Your task to perform on an android device: Go to sound settings Image 0: 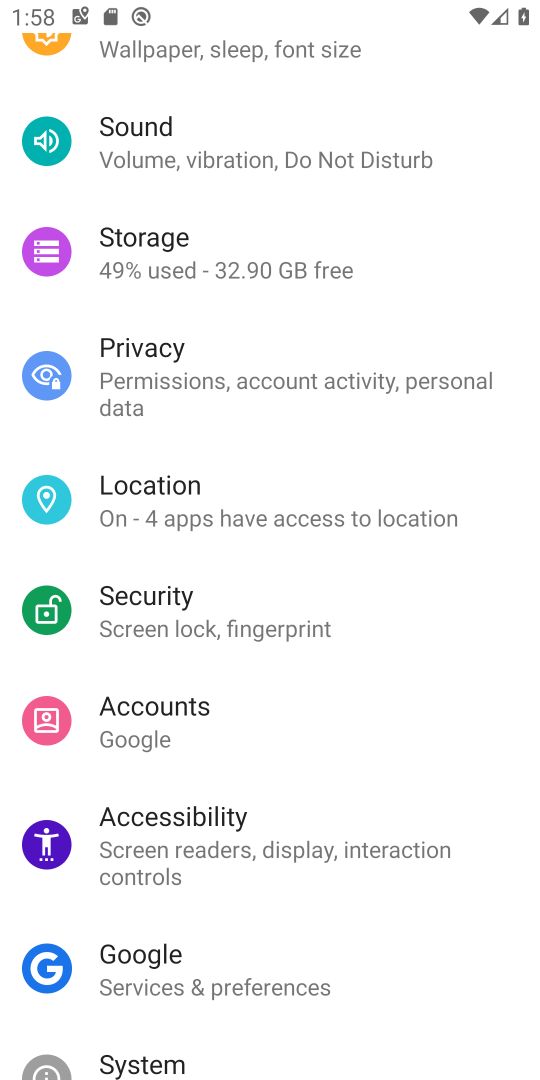
Step 0: click (302, 152)
Your task to perform on an android device: Go to sound settings Image 1: 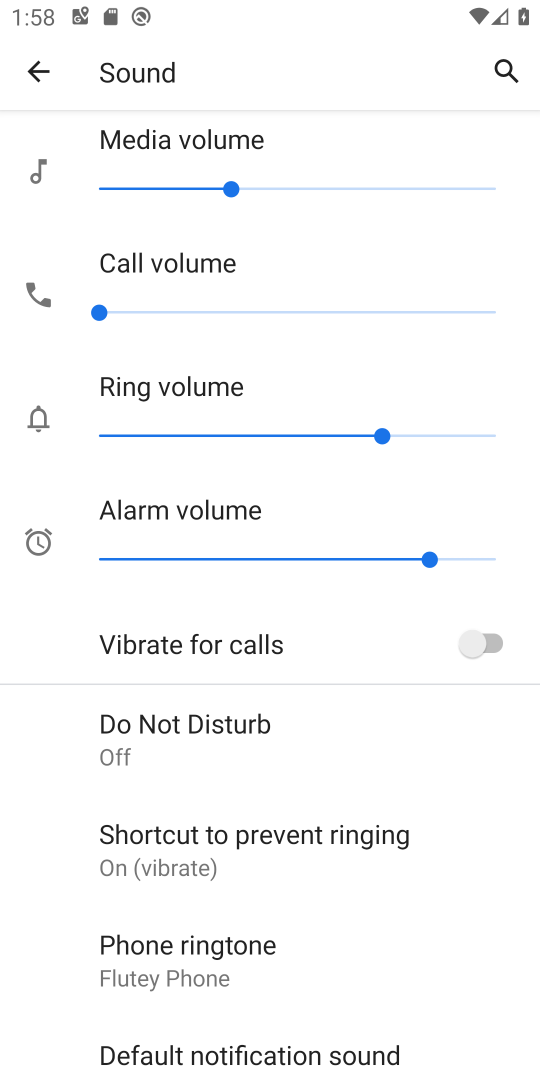
Step 1: task complete